Your task to perform on an android device: Open Wikipedia Image 0: 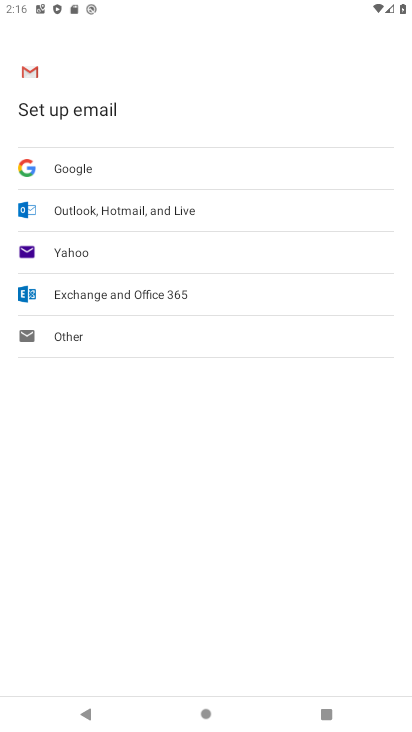
Step 0: press home button
Your task to perform on an android device: Open Wikipedia Image 1: 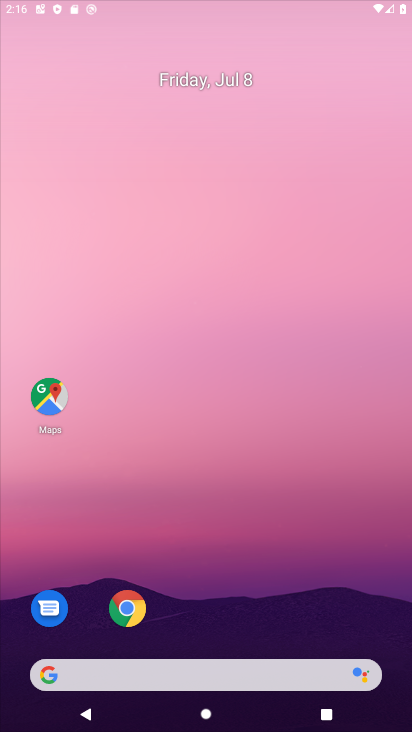
Step 1: drag from (321, 668) to (293, 13)
Your task to perform on an android device: Open Wikipedia Image 2: 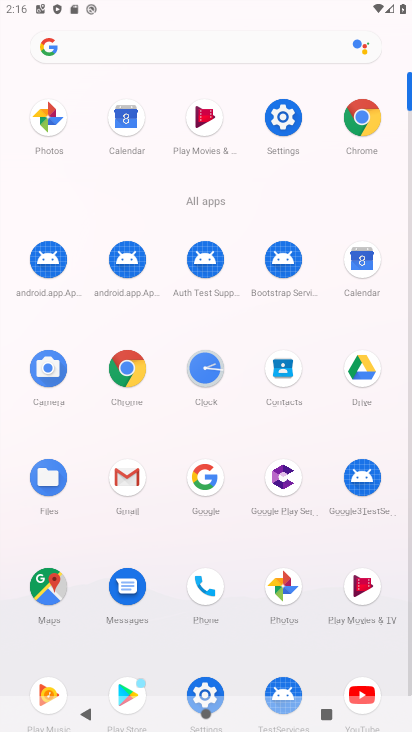
Step 2: click (122, 364)
Your task to perform on an android device: Open Wikipedia Image 3: 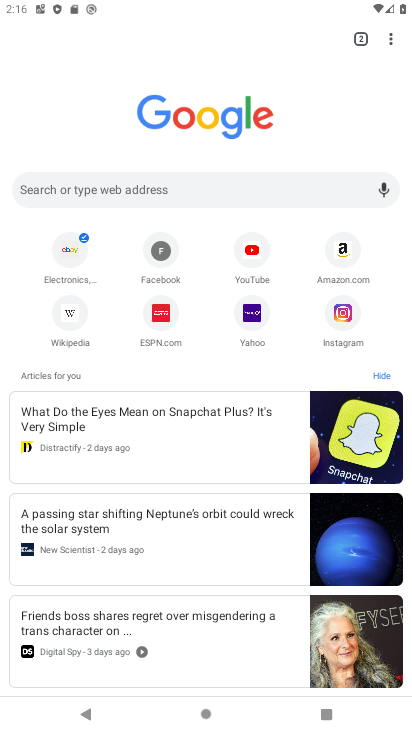
Step 3: click (63, 319)
Your task to perform on an android device: Open Wikipedia Image 4: 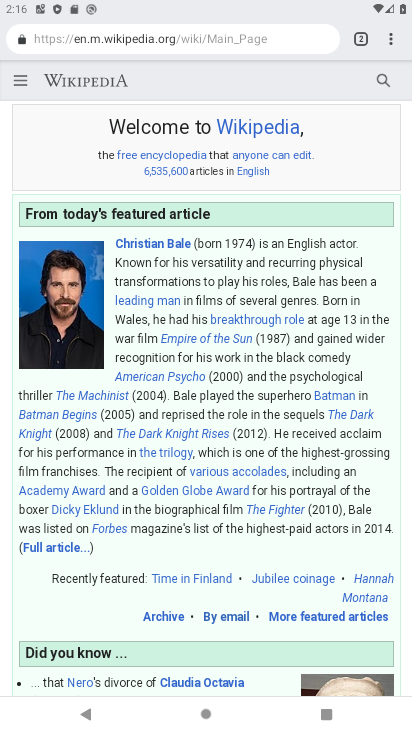
Step 4: task complete